Your task to perform on an android device: add a contact in the contacts app Image 0: 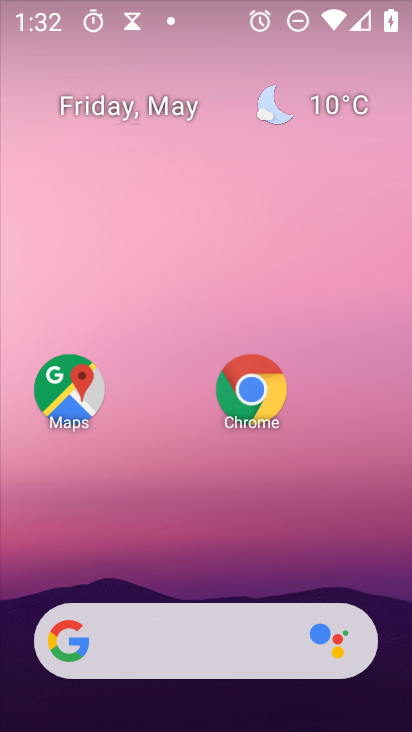
Step 0: press home button
Your task to perform on an android device: add a contact in the contacts app Image 1: 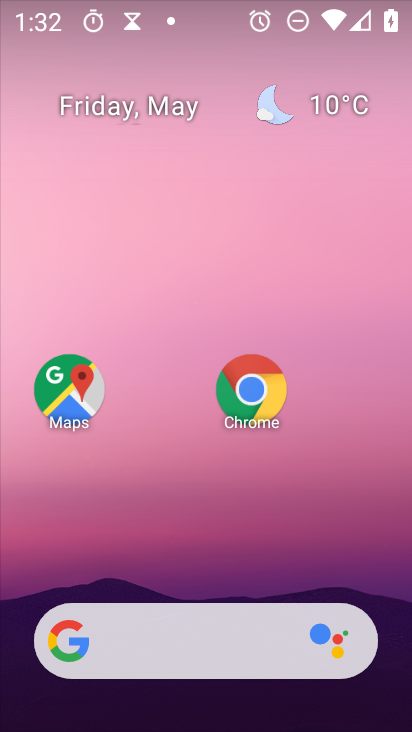
Step 1: drag from (162, 642) to (202, 209)
Your task to perform on an android device: add a contact in the contacts app Image 2: 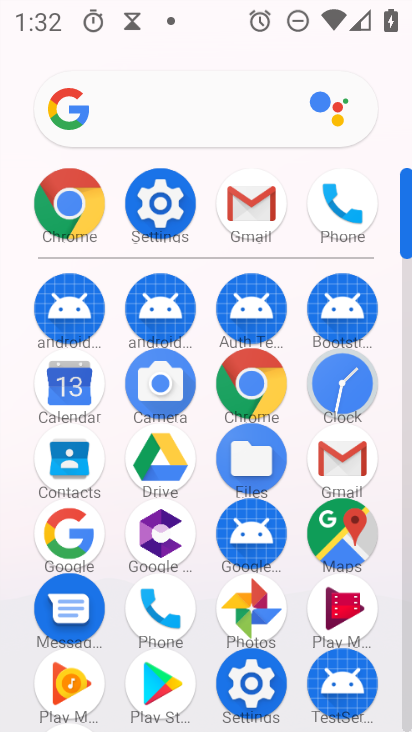
Step 2: click (76, 474)
Your task to perform on an android device: add a contact in the contacts app Image 3: 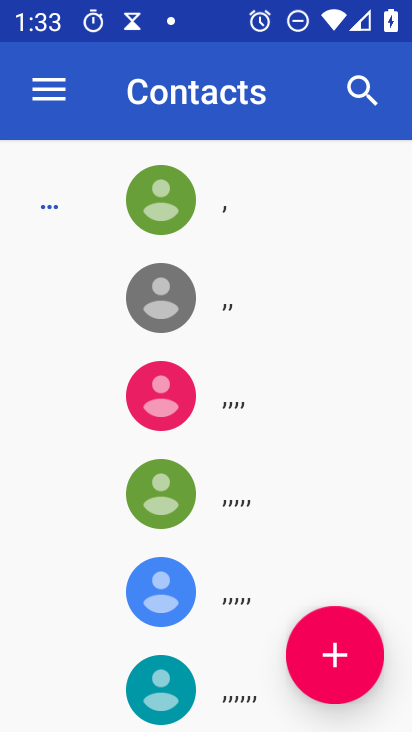
Step 3: click (323, 651)
Your task to perform on an android device: add a contact in the contacts app Image 4: 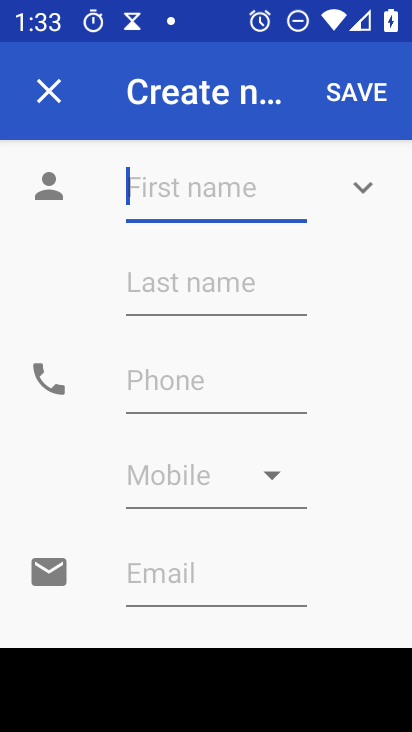
Step 4: type "xsdfew"
Your task to perform on an android device: add a contact in the contacts app Image 5: 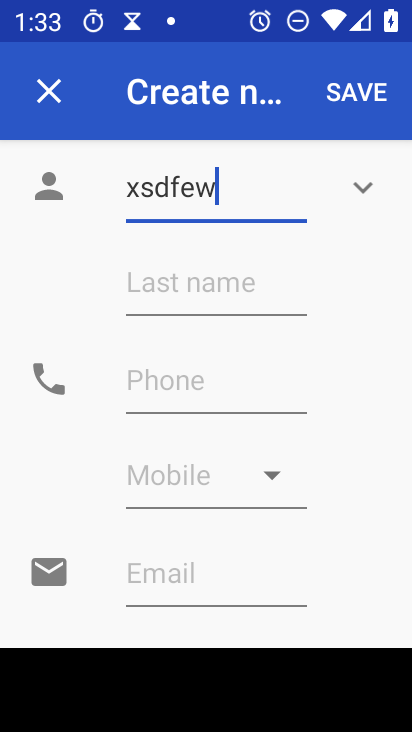
Step 5: click (151, 381)
Your task to perform on an android device: add a contact in the contacts app Image 6: 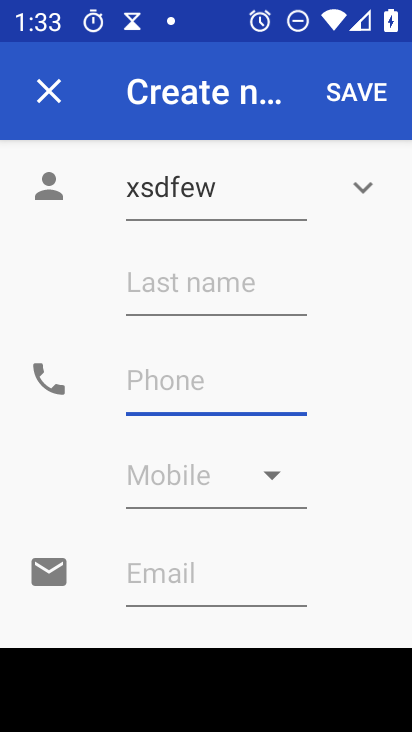
Step 6: type "965789"
Your task to perform on an android device: add a contact in the contacts app Image 7: 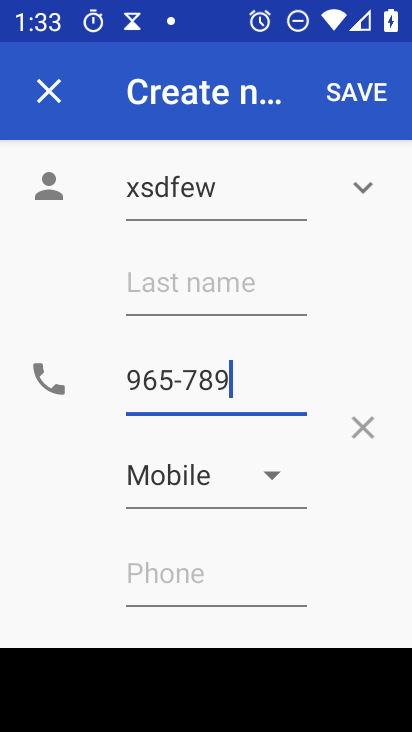
Step 7: click (375, 91)
Your task to perform on an android device: add a contact in the contacts app Image 8: 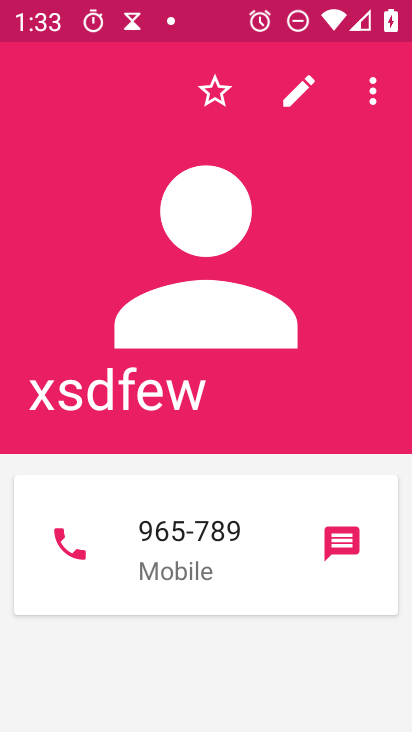
Step 8: task complete